Your task to perform on an android device: turn on airplane mode Image 0: 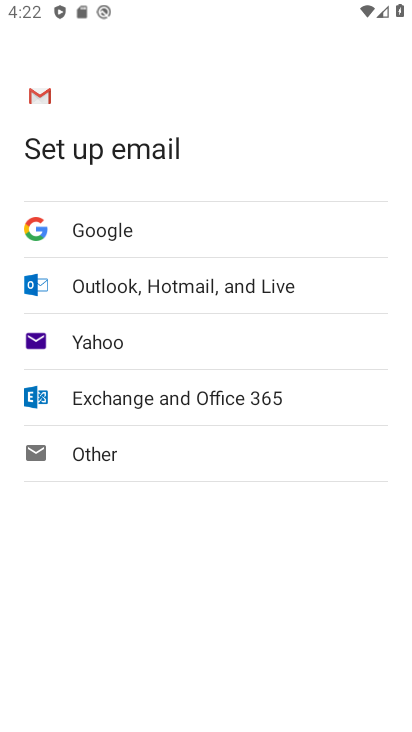
Step 0: press home button
Your task to perform on an android device: turn on airplane mode Image 1: 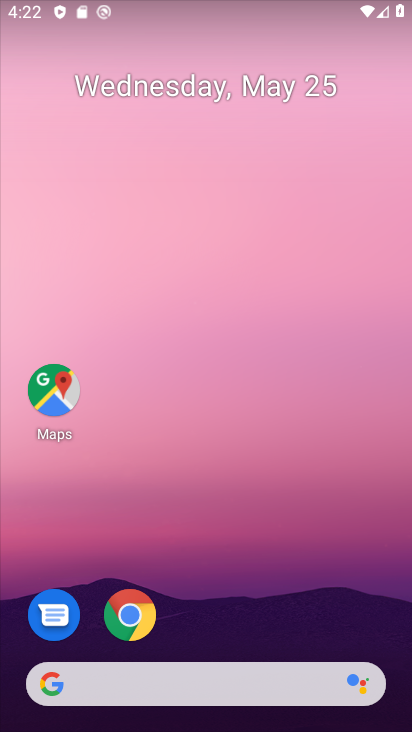
Step 1: drag from (356, 0) to (253, 727)
Your task to perform on an android device: turn on airplane mode Image 2: 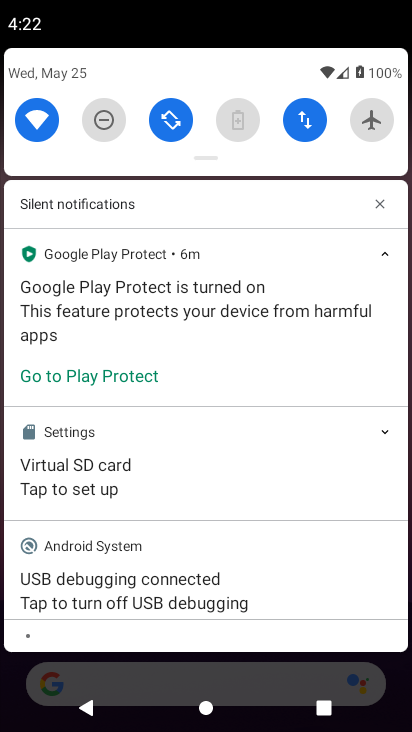
Step 2: click (371, 137)
Your task to perform on an android device: turn on airplane mode Image 3: 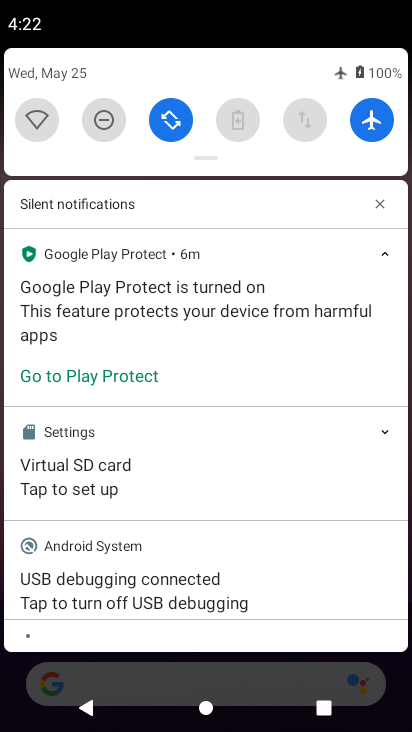
Step 3: task complete